Your task to perform on an android device: Go to calendar. Show me events next week Image 0: 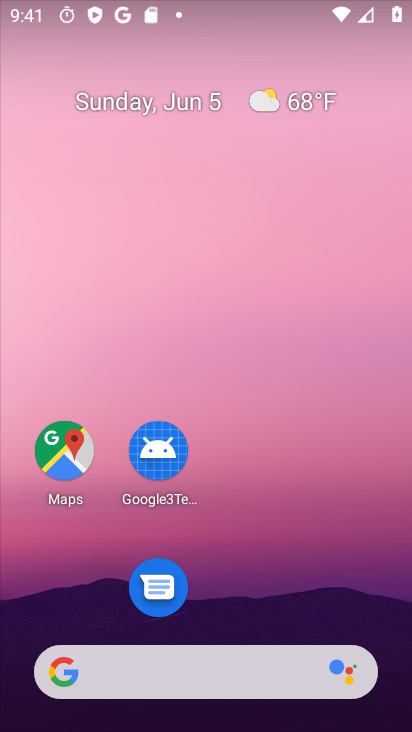
Step 0: drag from (249, 605) to (205, 350)
Your task to perform on an android device: Go to calendar. Show me events next week Image 1: 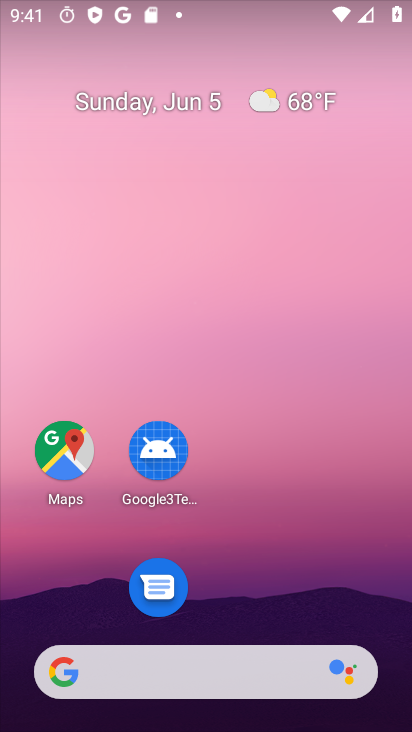
Step 1: drag from (293, 573) to (229, 162)
Your task to perform on an android device: Go to calendar. Show me events next week Image 2: 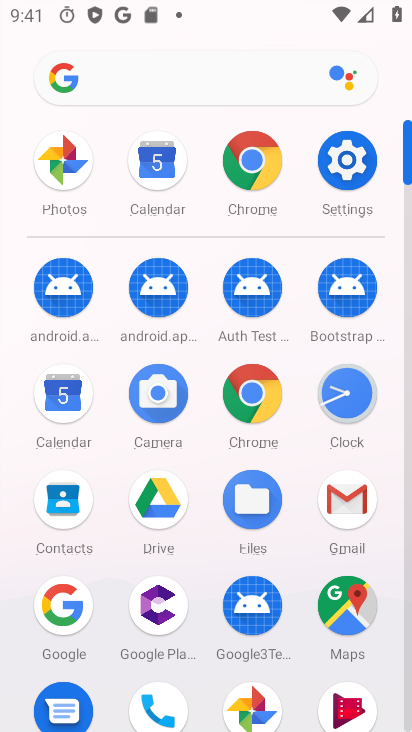
Step 2: click (76, 400)
Your task to perform on an android device: Go to calendar. Show me events next week Image 3: 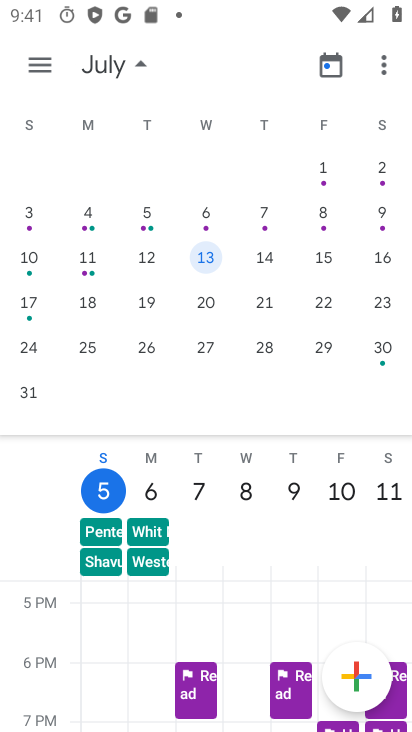
Step 3: click (115, 57)
Your task to perform on an android device: Go to calendar. Show me events next week Image 4: 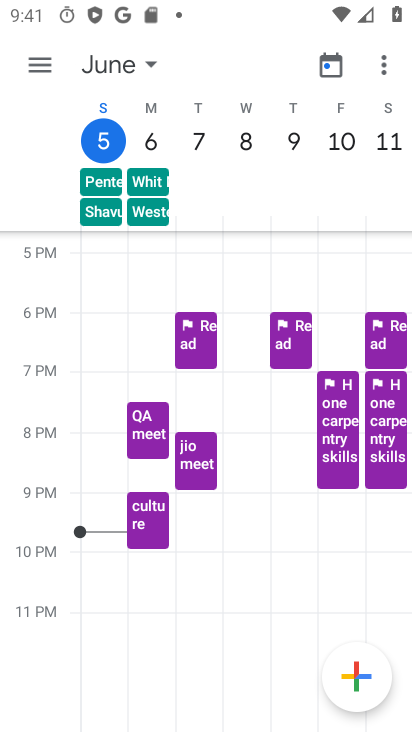
Step 4: task complete